Your task to perform on an android device: open device folders in google photos Image 0: 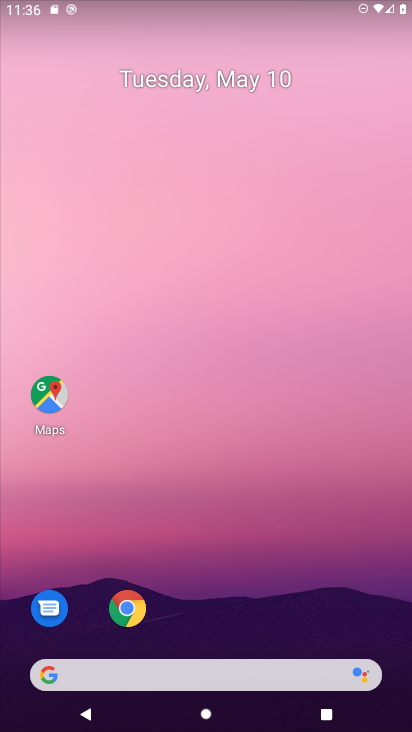
Step 0: drag from (291, 594) to (255, 89)
Your task to perform on an android device: open device folders in google photos Image 1: 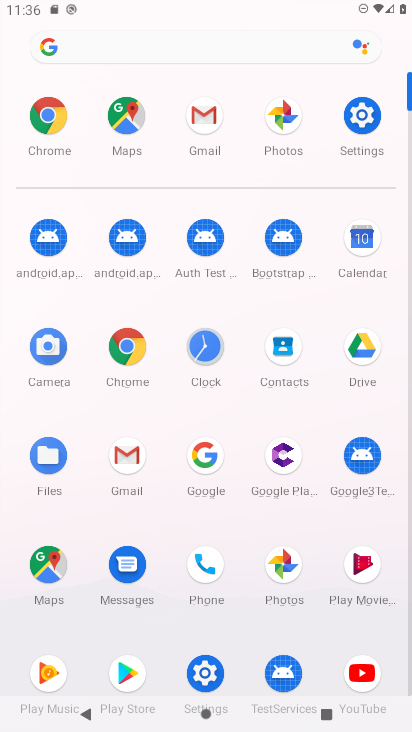
Step 1: click (280, 108)
Your task to perform on an android device: open device folders in google photos Image 2: 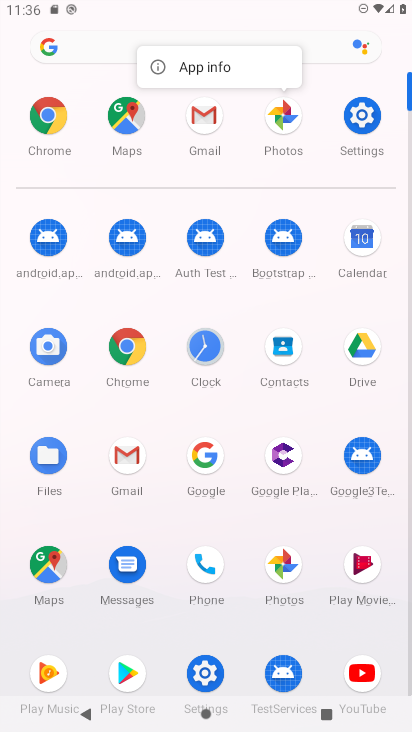
Step 2: click (277, 114)
Your task to perform on an android device: open device folders in google photos Image 3: 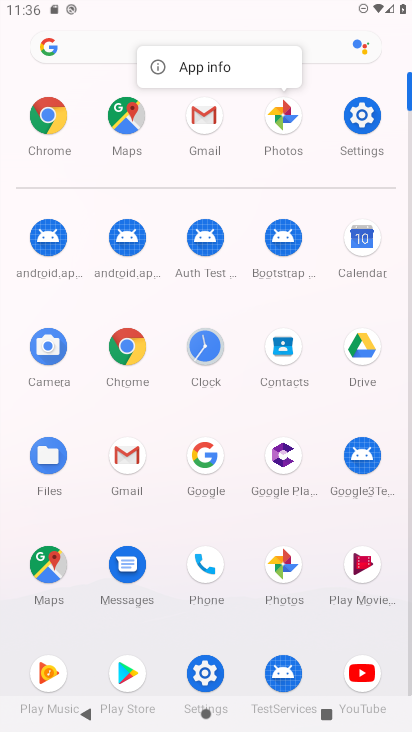
Step 3: click (288, 111)
Your task to perform on an android device: open device folders in google photos Image 4: 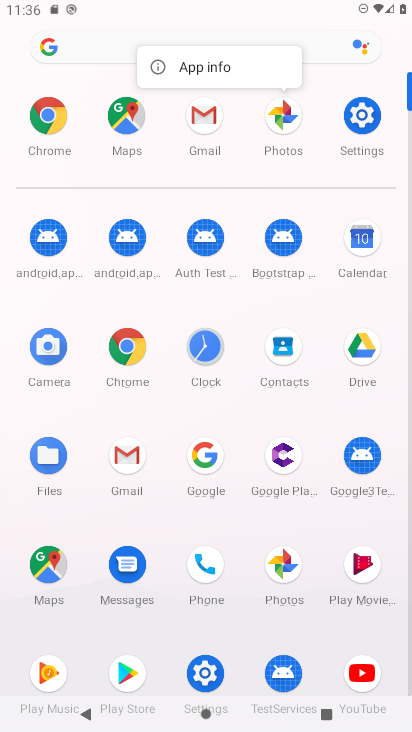
Step 4: click (285, 117)
Your task to perform on an android device: open device folders in google photos Image 5: 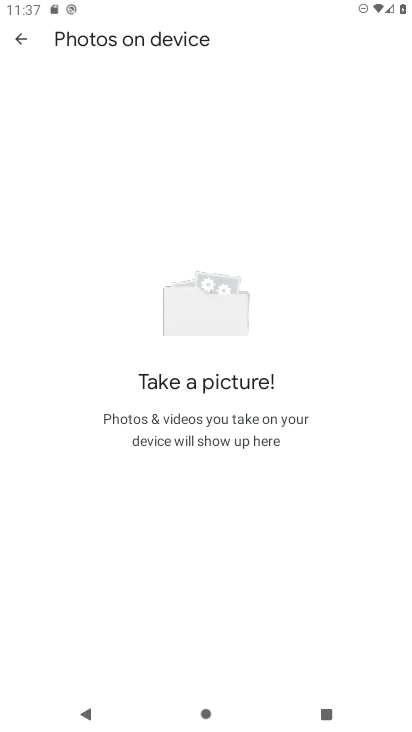
Step 5: task complete